Your task to perform on an android device: turn off javascript in the chrome app Image 0: 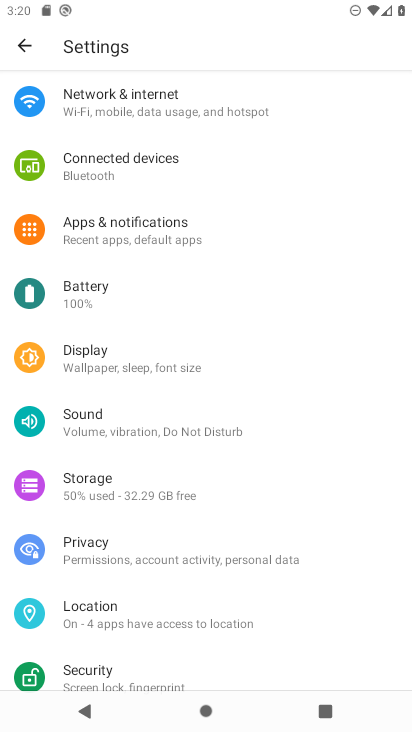
Step 0: press home button
Your task to perform on an android device: turn off javascript in the chrome app Image 1: 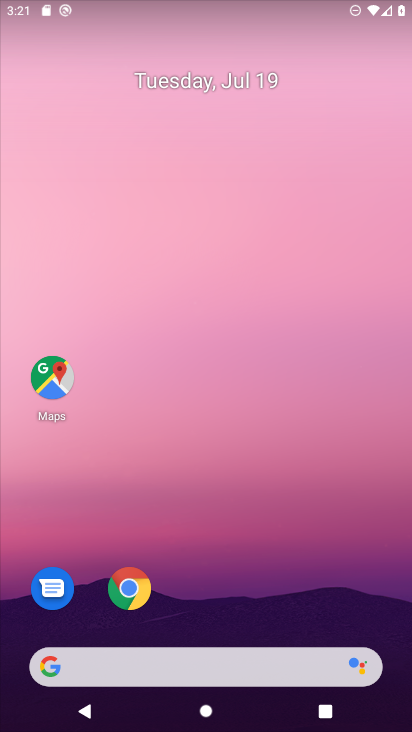
Step 1: click (133, 598)
Your task to perform on an android device: turn off javascript in the chrome app Image 2: 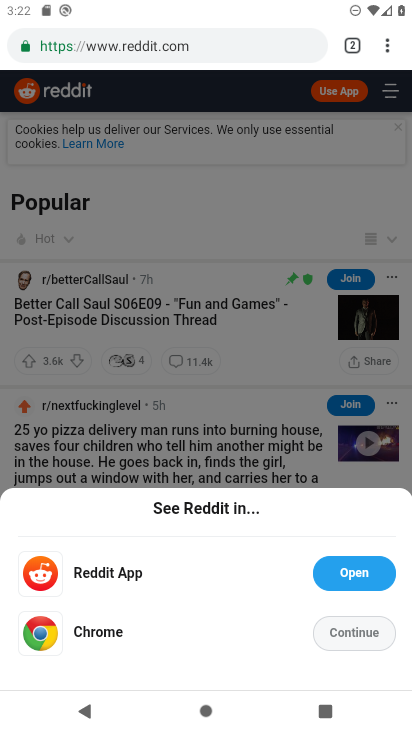
Step 2: click (387, 53)
Your task to perform on an android device: turn off javascript in the chrome app Image 3: 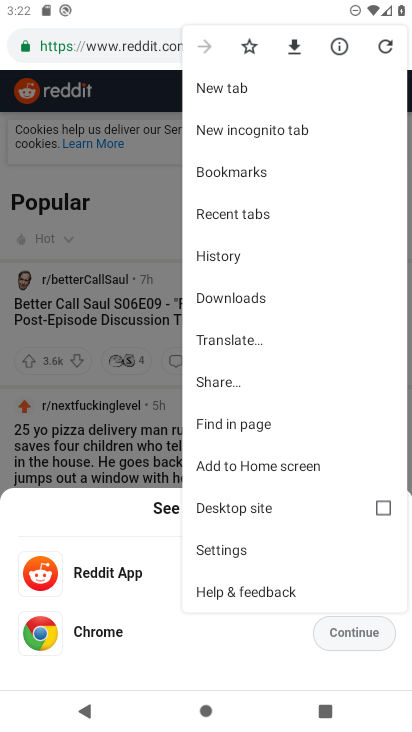
Step 3: click (225, 548)
Your task to perform on an android device: turn off javascript in the chrome app Image 4: 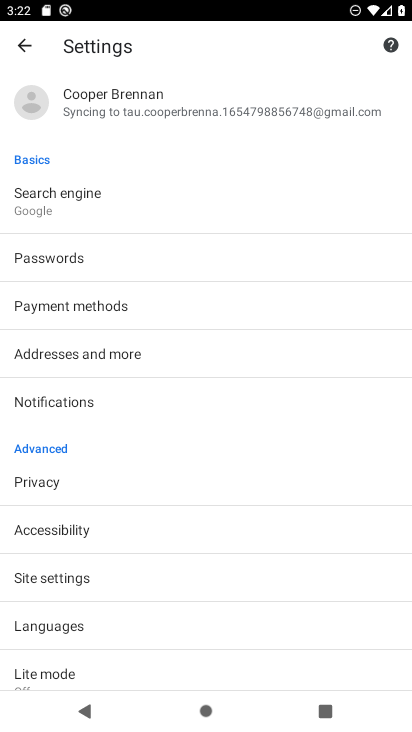
Step 4: click (57, 574)
Your task to perform on an android device: turn off javascript in the chrome app Image 5: 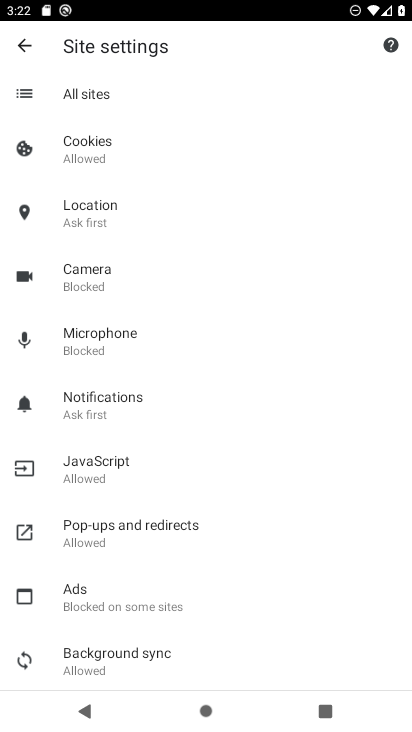
Step 5: click (91, 498)
Your task to perform on an android device: turn off javascript in the chrome app Image 6: 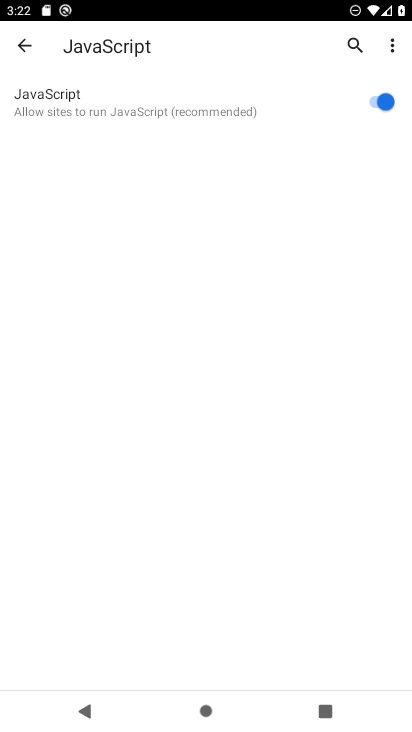
Step 6: click (377, 99)
Your task to perform on an android device: turn off javascript in the chrome app Image 7: 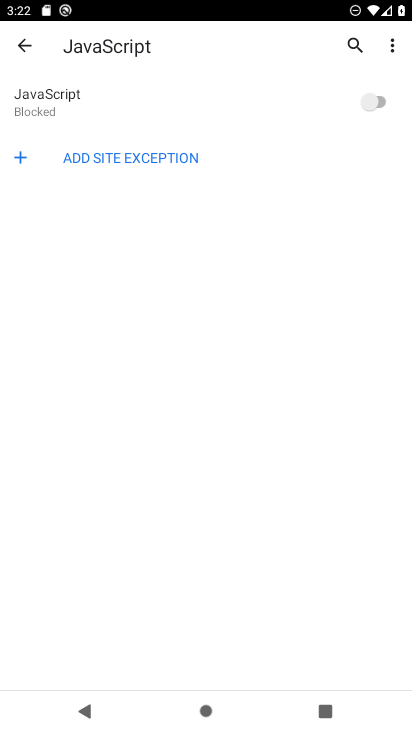
Step 7: task complete